Your task to perform on an android device: change text size in settings app Image 0: 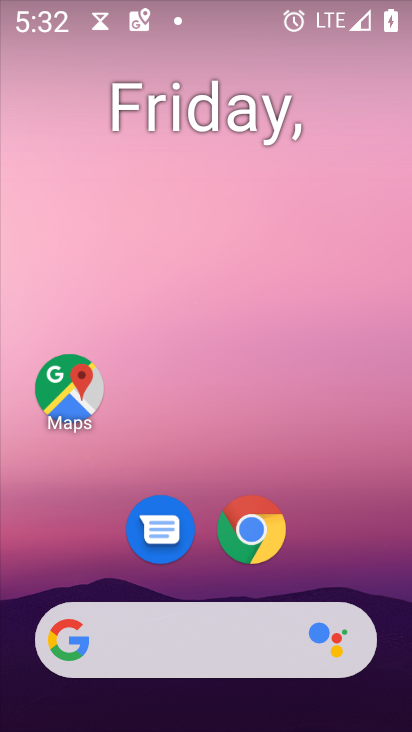
Step 0: drag from (326, 521) to (205, 77)
Your task to perform on an android device: change text size in settings app Image 1: 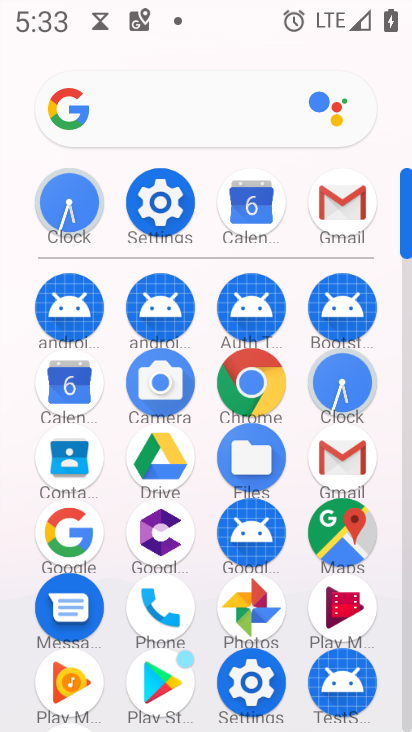
Step 1: click (147, 226)
Your task to perform on an android device: change text size in settings app Image 2: 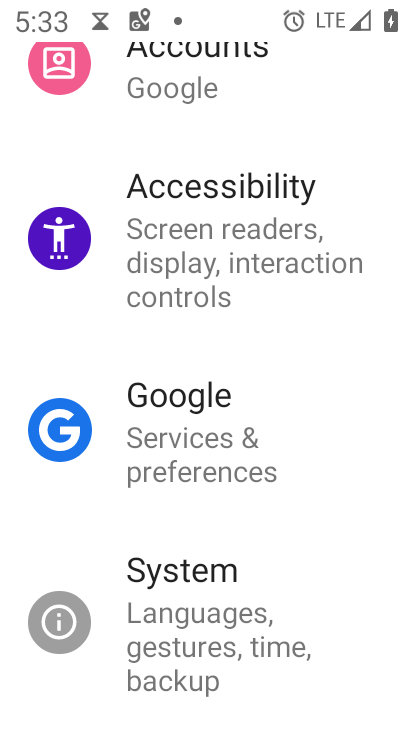
Step 2: drag from (248, 111) to (179, 730)
Your task to perform on an android device: change text size in settings app Image 3: 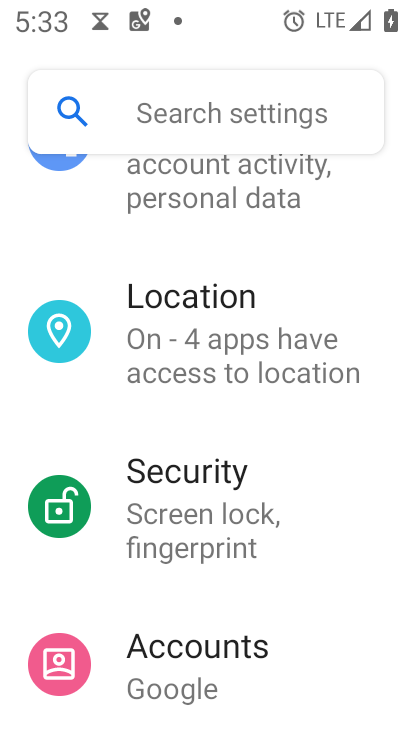
Step 3: drag from (270, 221) to (238, 718)
Your task to perform on an android device: change text size in settings app Image 4: 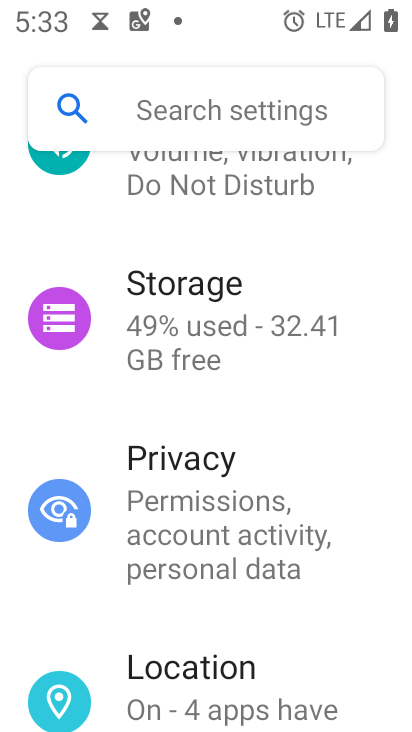
Step 4: drag from (251, 235) to (220, 707)
Your task to perform on an android device: change text size in settings app Image 5: 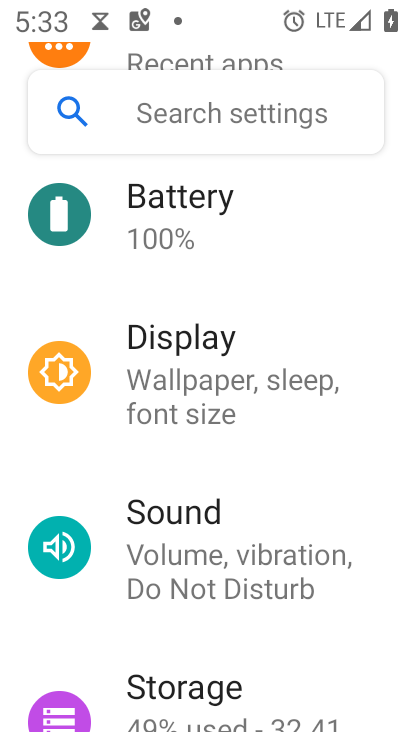
Step 5: click (170, 404)
Your task to perform on an android device: change text size in settings app Image 6: 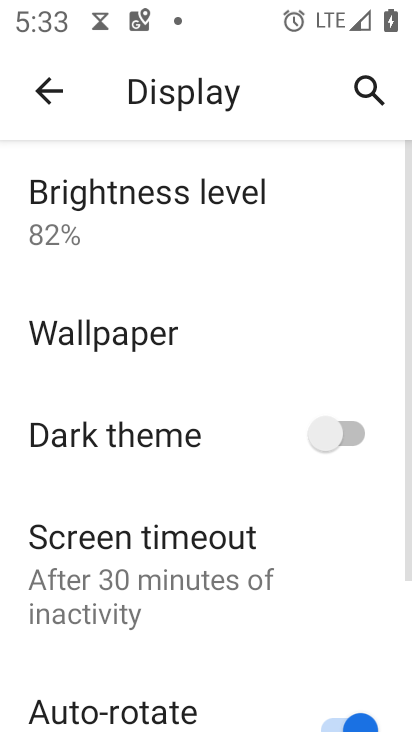
Step 6: drag from (196, 662) to (148, 234)
Your task to perform on an android device: change text size in settings app Image 7: 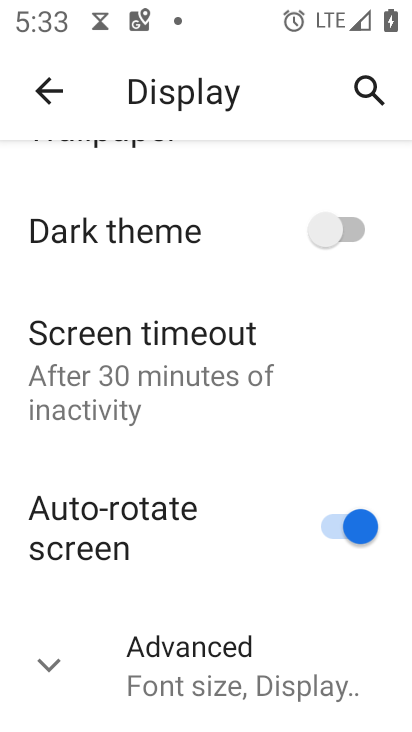
Step 7: click (145, 655)
Your task to perform on an android device: change text size in settings app Image 8: 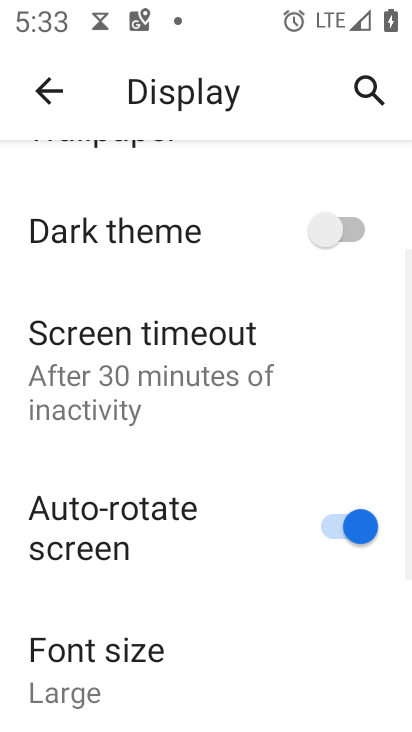
Step 8: click (144, 678)
Your task to perform on an android device: change text size in settings app Image 9: 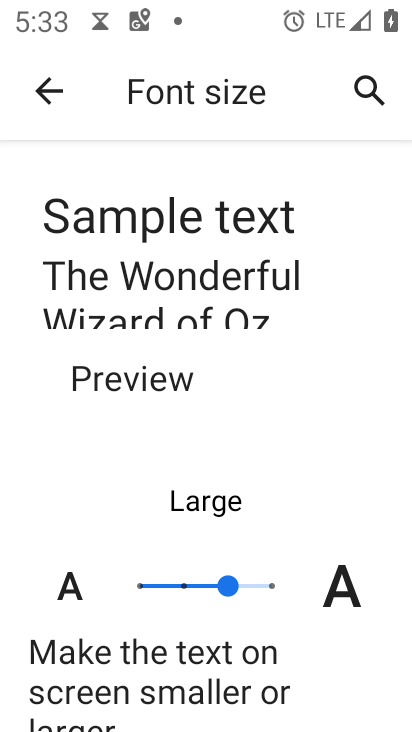
Step 9: click (138, 586)
Your task to perform on an android device: change text size in settings app Image 10: 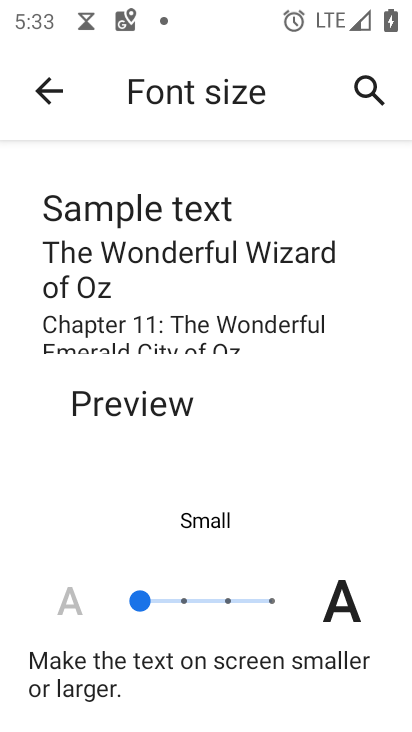
Step 10: task complete